Your task to perform on an android device: toggle translation in the chrome app Image 0: 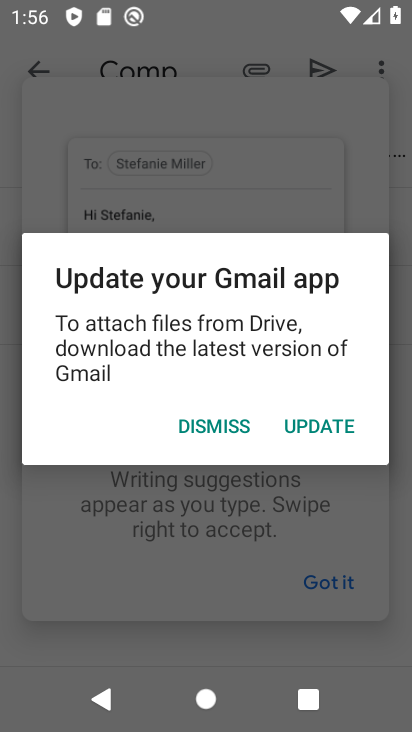
Step 0: press home button
Your task to perform on an android device: toggle translation in the chrome app Image 1: 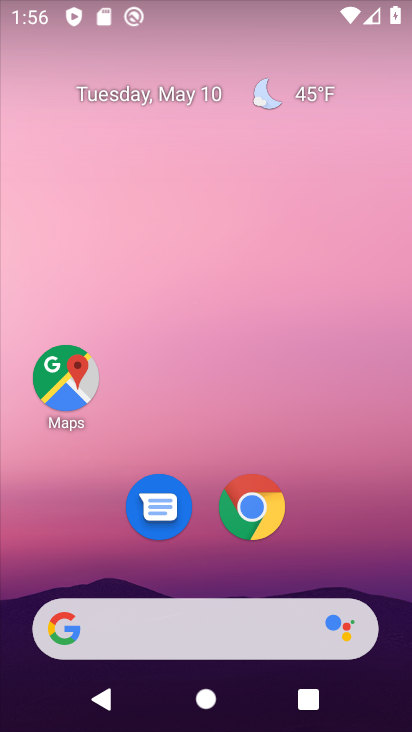
Step 1: drag from (340, 490) to (125, 109)
Your task to perform on an android device: toggle translation in the chrome app Image 2: 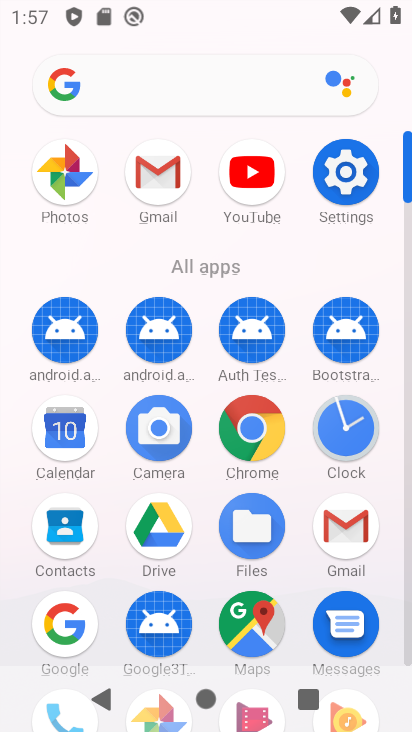
Step 2: click (255, 438)
Your task to perform on an android device: toggle translation in the chrome app Image 3: 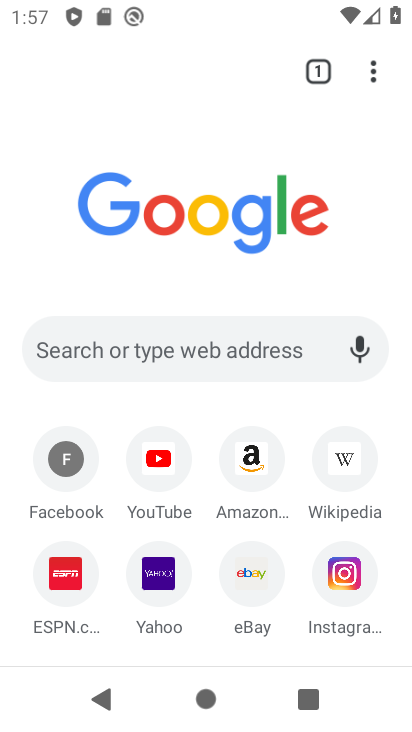
Step 3: click (375, 70)
Your task to perform on an android device: toggle translation in the chrome app Image 4: 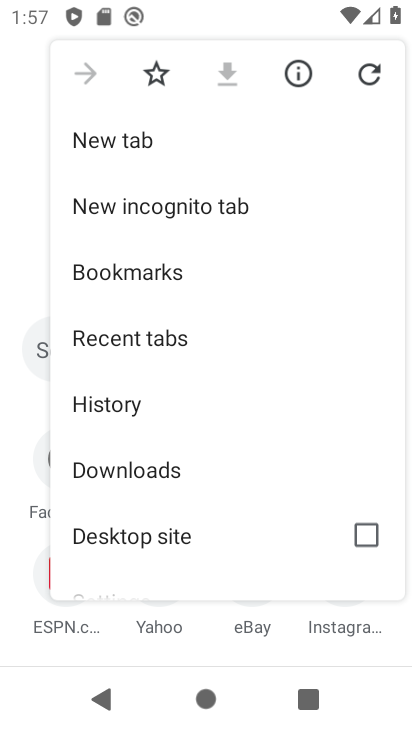
Step 4: drag from (135, 543) to (148, 173)
Your task to perform on an android device: toggle translation in the chrome app Image 5: 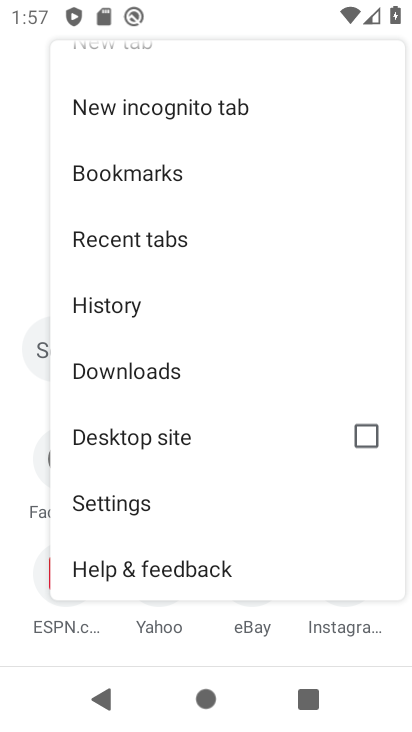
Step 5: click (102, 516)
Your task to perform on an android device: toggle translation in the chrome app Image 6: 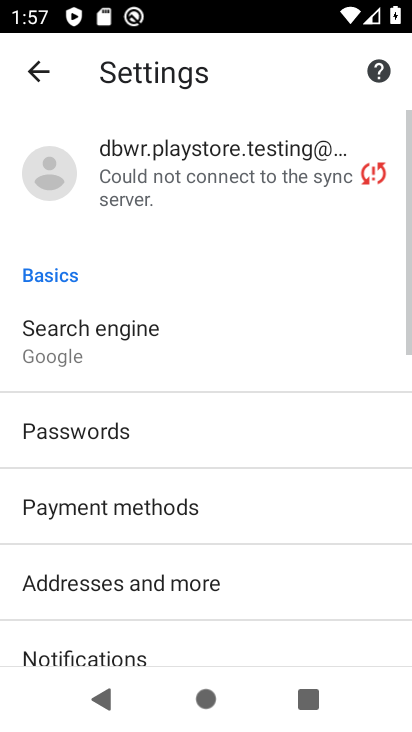
Step 6: drag from (134, 603) to (143, 253)
Your task to perform on an android device: toggle translation in the chrome app Image 7: 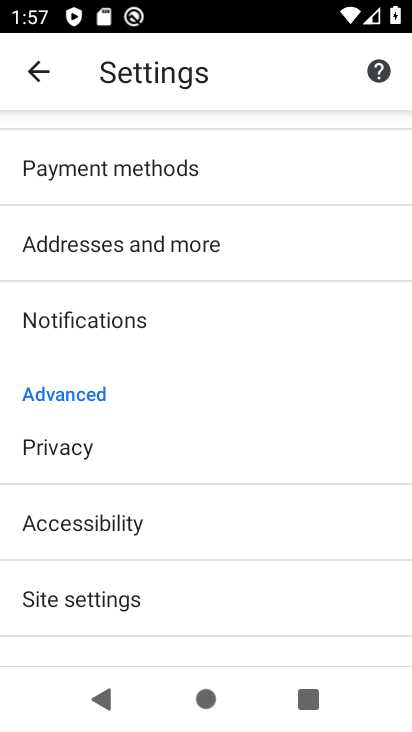
Step 7: drag from (86, 597) to (97, 401)
Your task to perform on an android device: toggle translation in the chrome app Image 8: 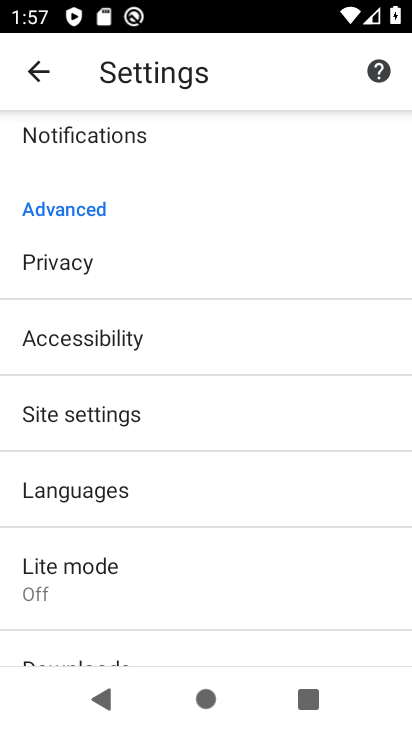
Step 8: click (66, 493)
Your task to perform on an android device: toggle translation in the chrome app Image 9: 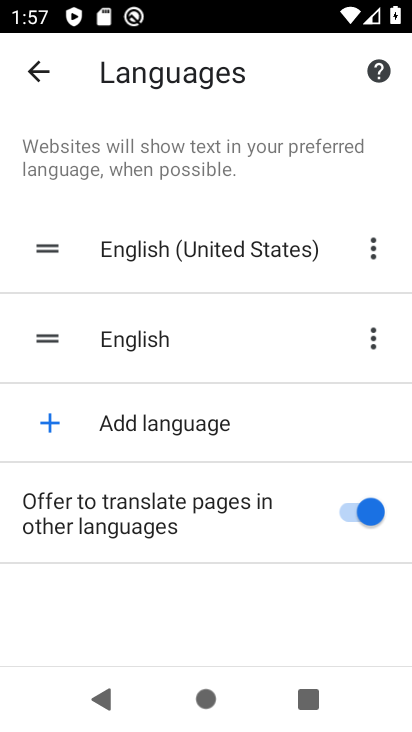
Step 9: click (344, 512)
Your task to perform on an android device: toggle translation in the chrome app Image 10: 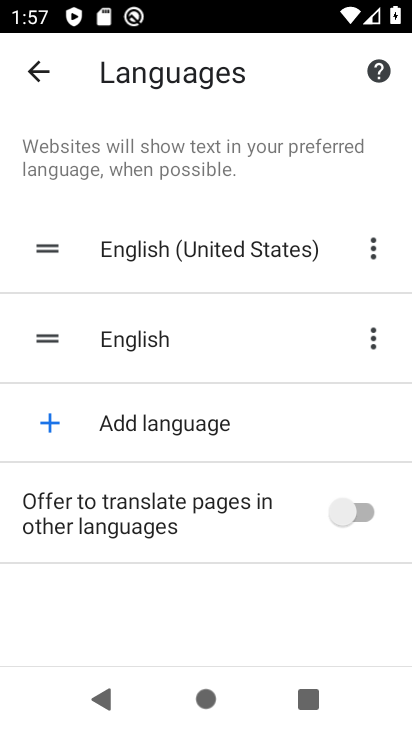
Step 10: task complete